Your task to perform on an android device: move an email to a new category in the gmail app Image 0: 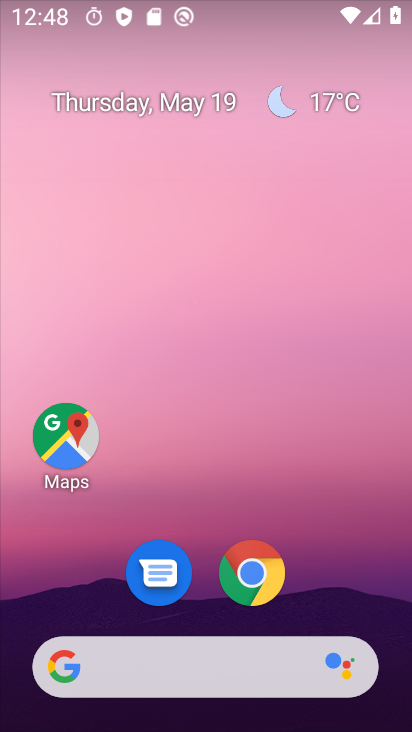
Step 0: drag from (201, 598) to (274, 141)
Your task to perform on an android device: move an email to a new category in the gmail app Image 1: 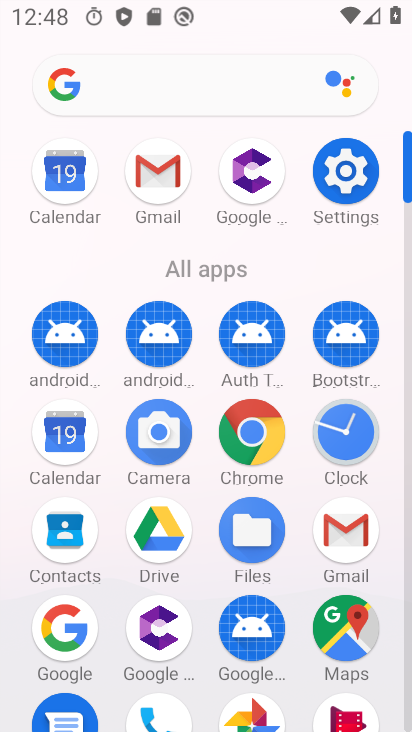
Step 1: click (151, 167)
Your task to perform on an android device: move an email to a new category in the gmail app Image 2: 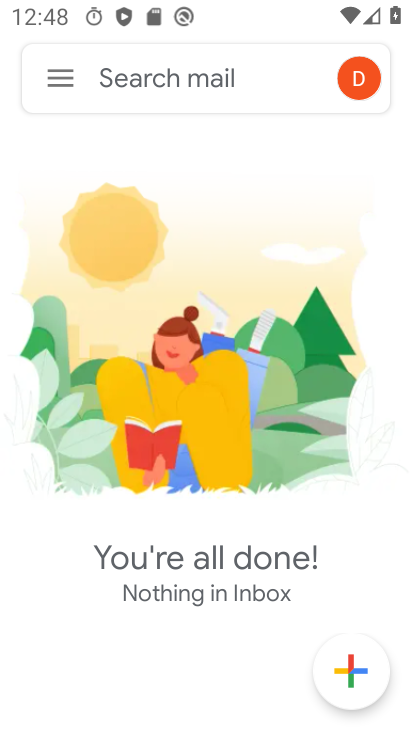
Step 2: click (58, 72)
Your task to perform on an android device: move an email to a new category in the gmail app Image 3: 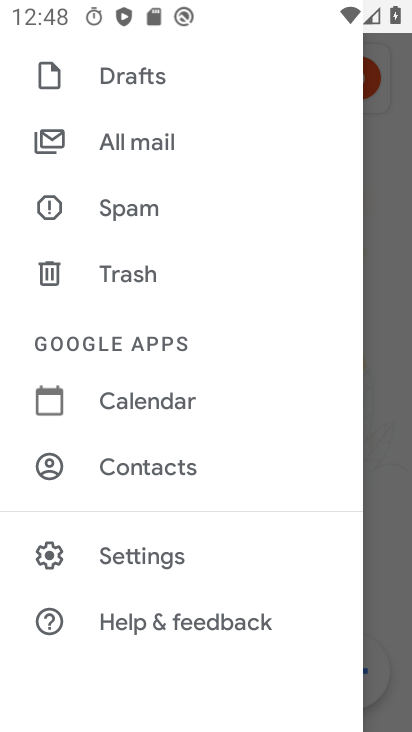
Step 3: drag from (221, 138) to (222, 621)
Your task to perform on an android device: move an email to a new category in the gmail app Image 4: 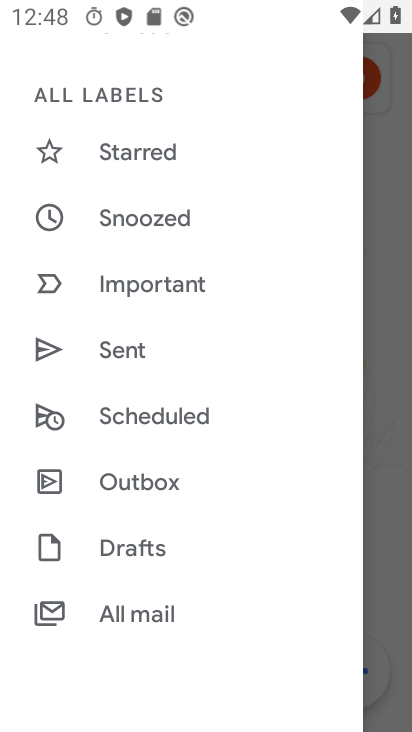
Step 4: click (157, 611)
Your task to perform on an android device: move an email to a new category in the gmail app Image 5: 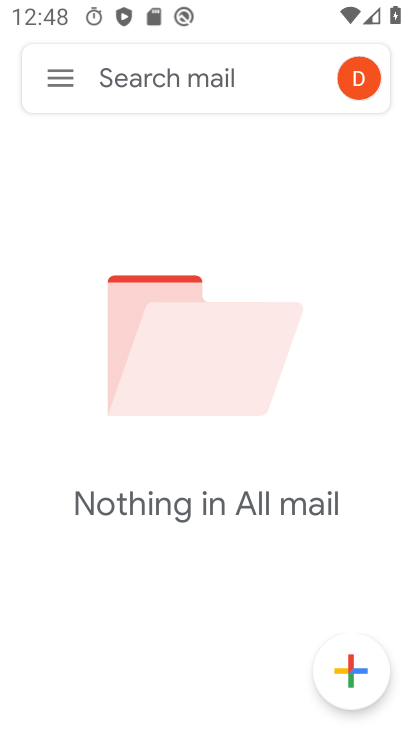
Step 5: task complete